Your task to perform on an android device: Open the web browser Image 0: 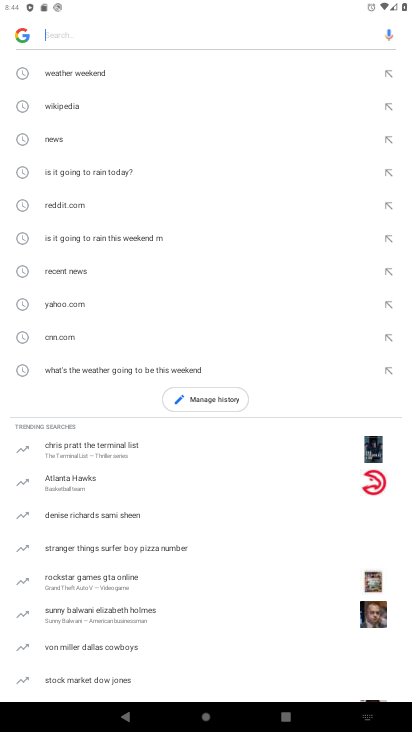
Step 0: press home button
Your task to perform on an android device: Open the web browser Image 1: 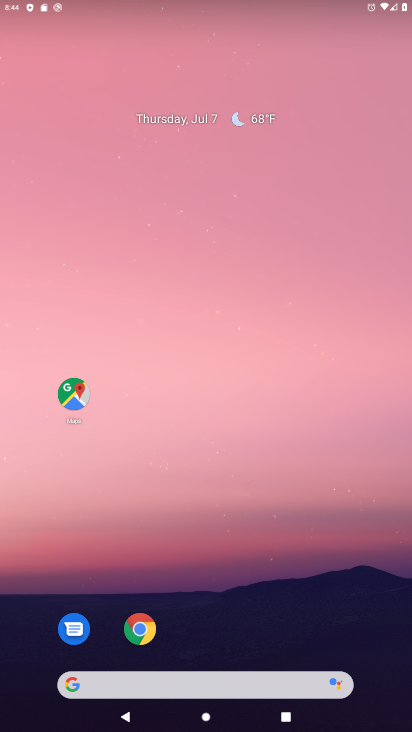
Step 1: drag from (202, 640) to (214, 152)
Your task to perform on an android device: Open the web browser Image 2: 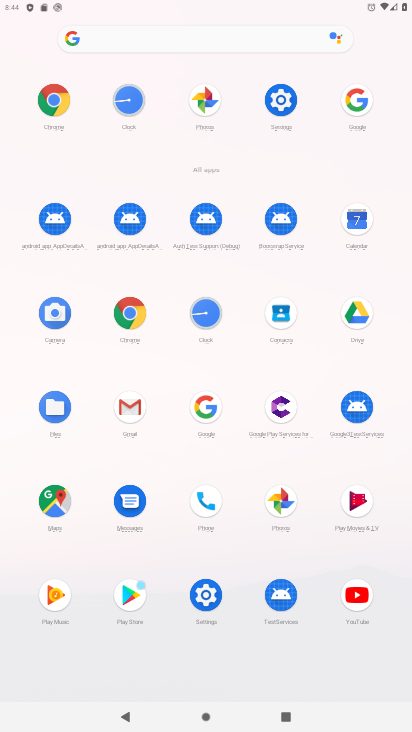
Step 2: click (206, 406)
Your task to perform on an android device: Open the web browser Image 3: 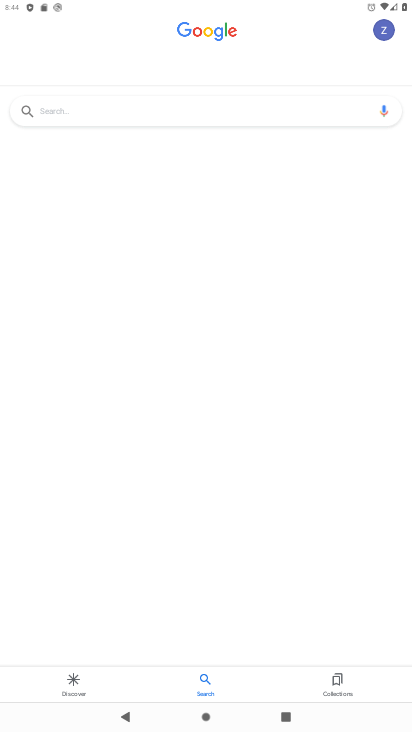
Step 3: task complete